Your task to perform on an android device: Open Maps and search for coffee Image 0: 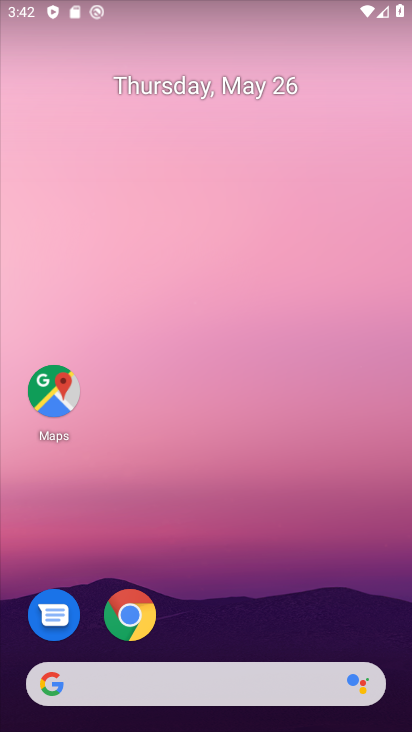
Step 0: click (59, 401)
Your task to perform on an android device: Open Maps and search for coffee Image 1: 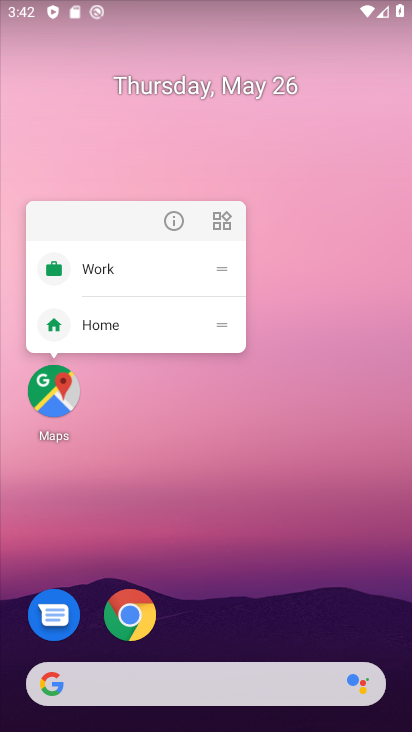
Step 1: click (64, 400)
Your task to perform on an android device: Open Maps and search for coffee Image 2: 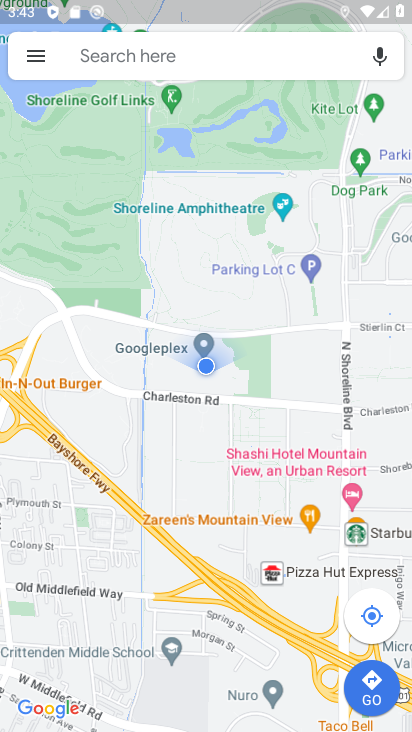
Step 2: click (180, 69)
Your task to perform on an android device: Open Maps and search for coffee Image 3: 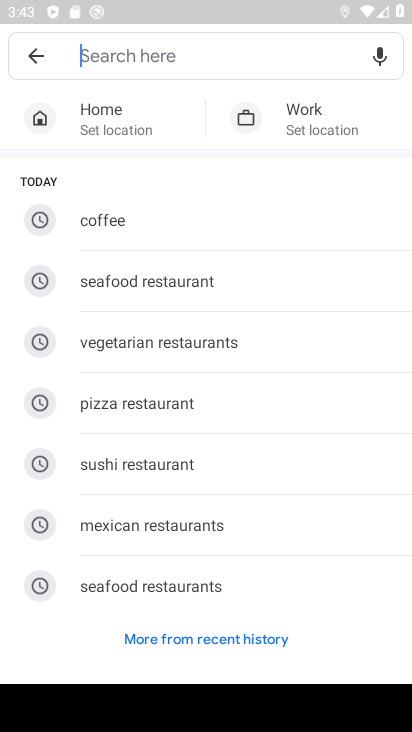
Step 3: type "Coffee"
Your task to perform on an android device: Open Maps and search for coffee Image 4: 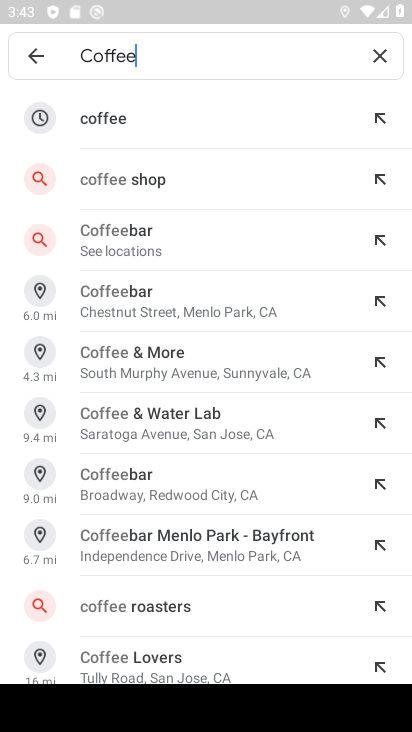
Step 4: click (137, 129)
Your task to perform on an android device: Open Maps and search for coffee Image 5: 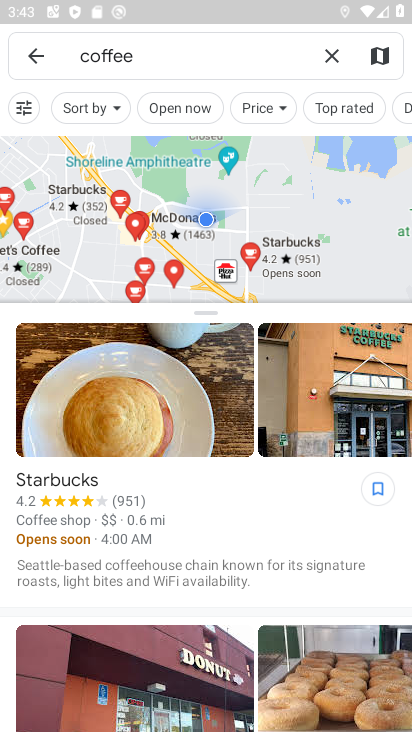
Step 5: task complete